Your task to perform on an android device: Open notification settings Image 0: 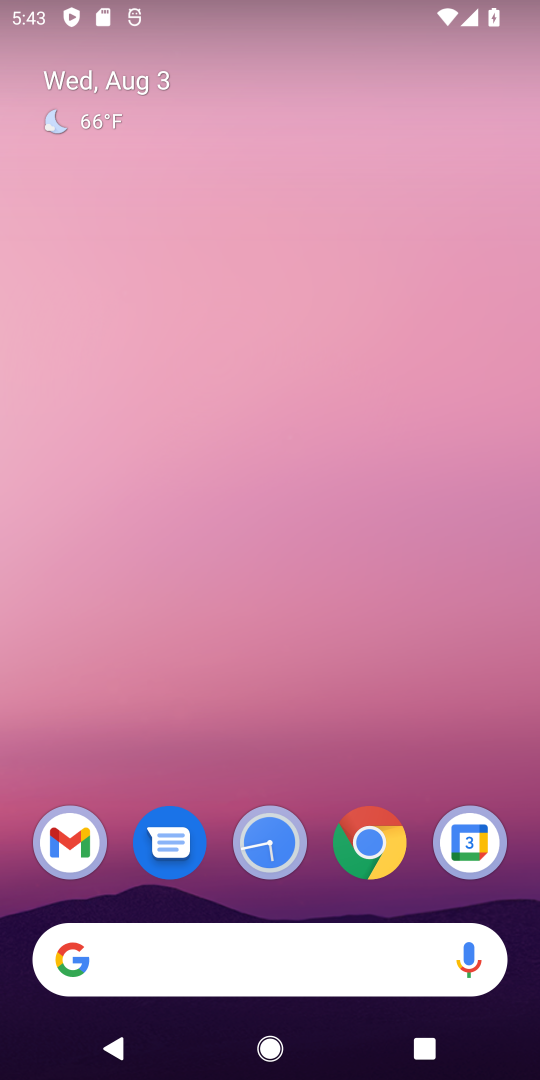
Step 0: press home button
Your task to perform on an android device: Open notification settings Image 1: 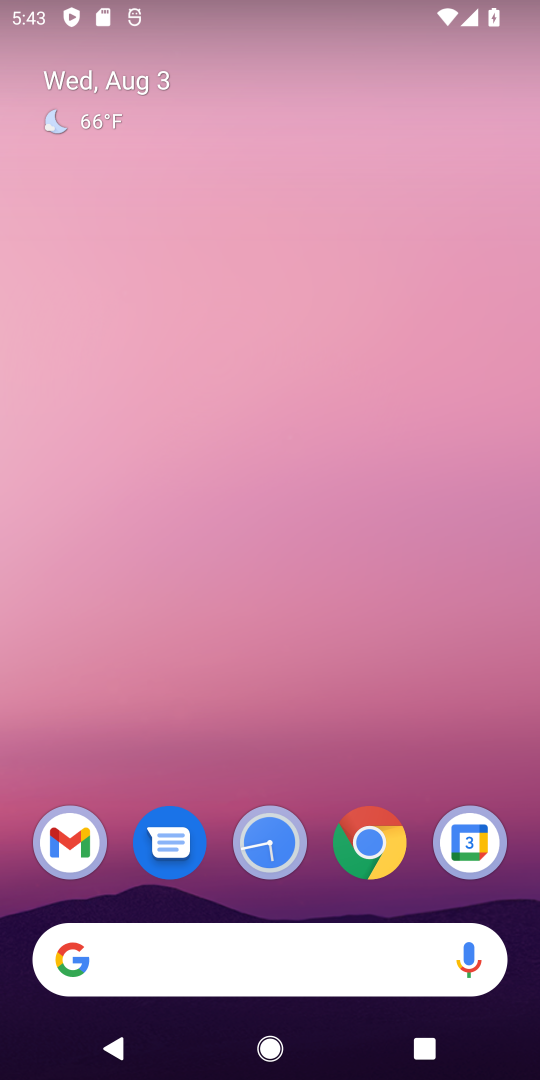
Step 1: drag from (198, 1043) to (292, 129)
Your task to perform on an android device: Open notification settings Image 2: 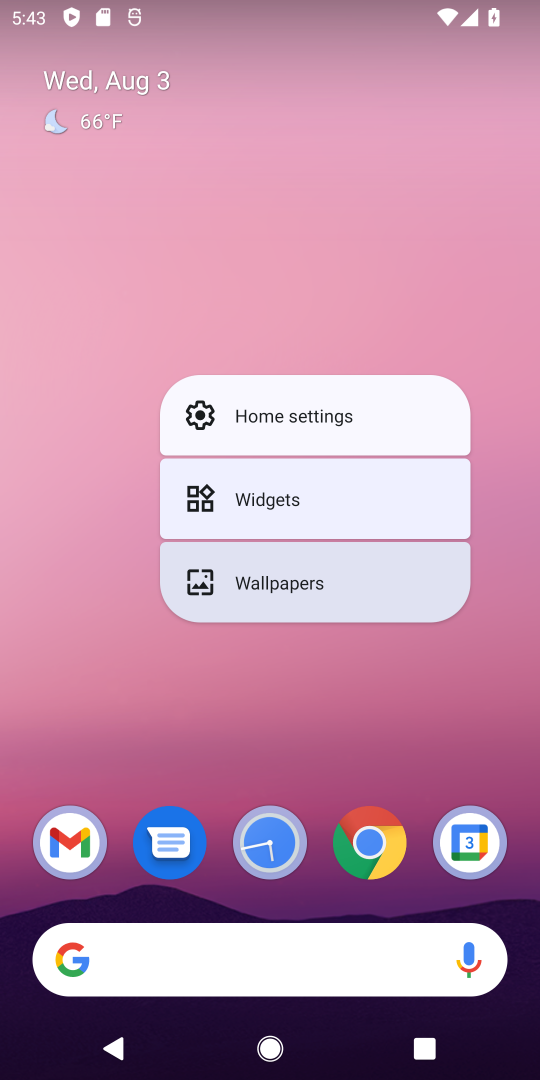
Step 2: click (273, 1055)
Your task to perform on an android device: Open notification settings Image 3: 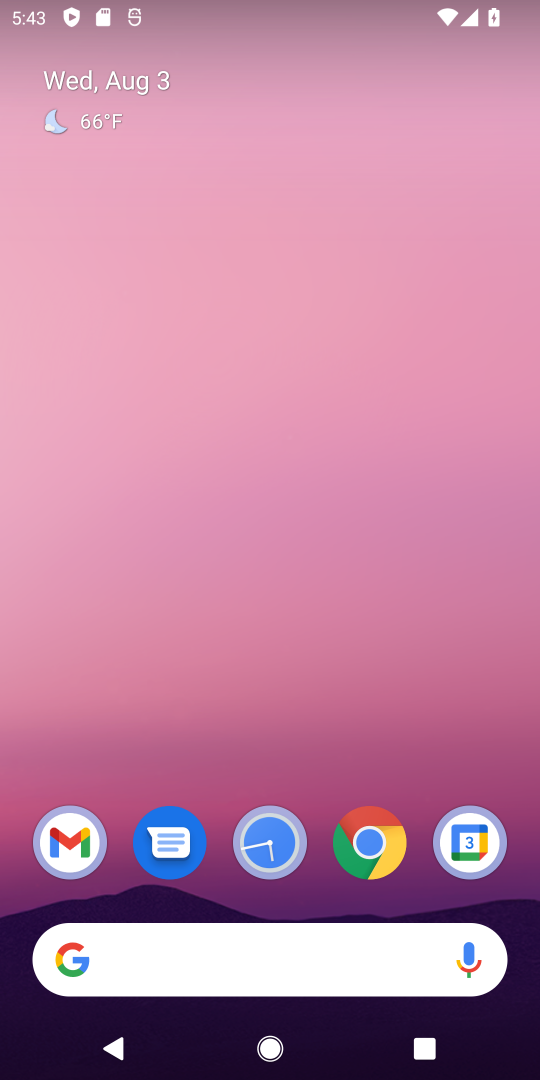
Step 3: drag from (331, 921) to (285, 25)
Your task to perform on an android device: Open notification settings Image 4: 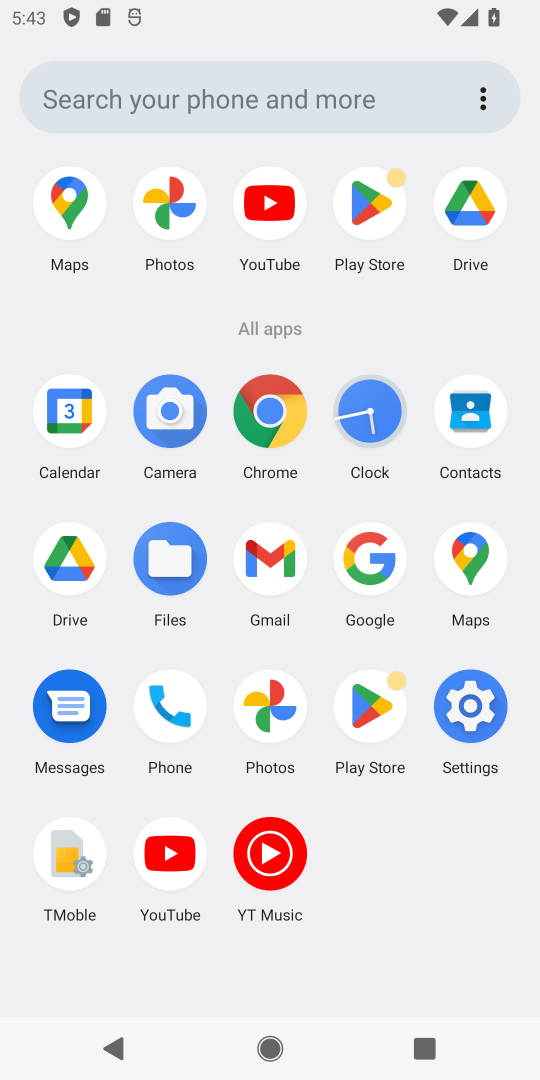
Step 4: click (459, 703)
Your task to perform on an android device: Open notification settings Image 5: 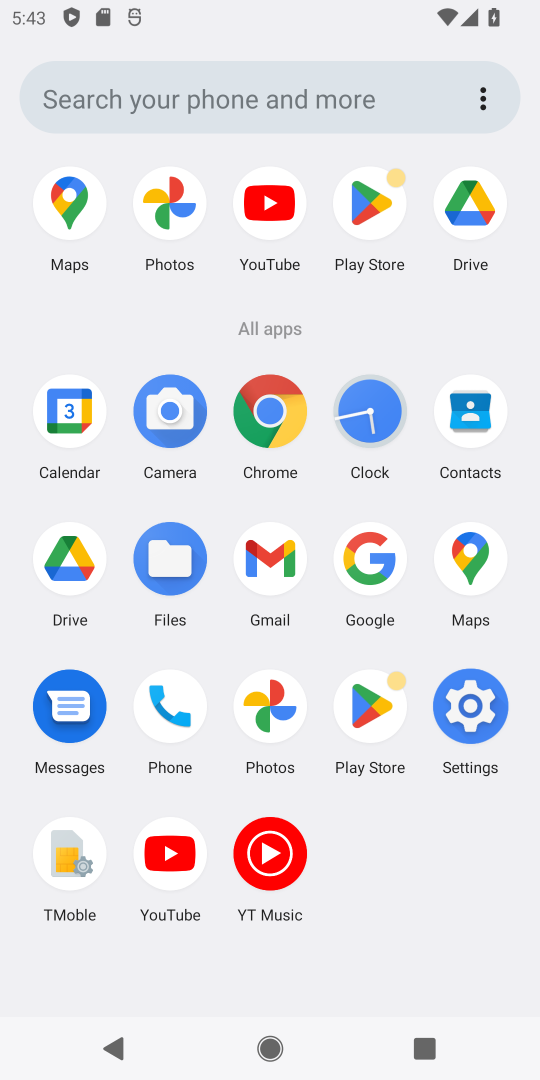
Step 5: click (459, 703)
Your task to perform on an android device: Open notification settings Image 6: 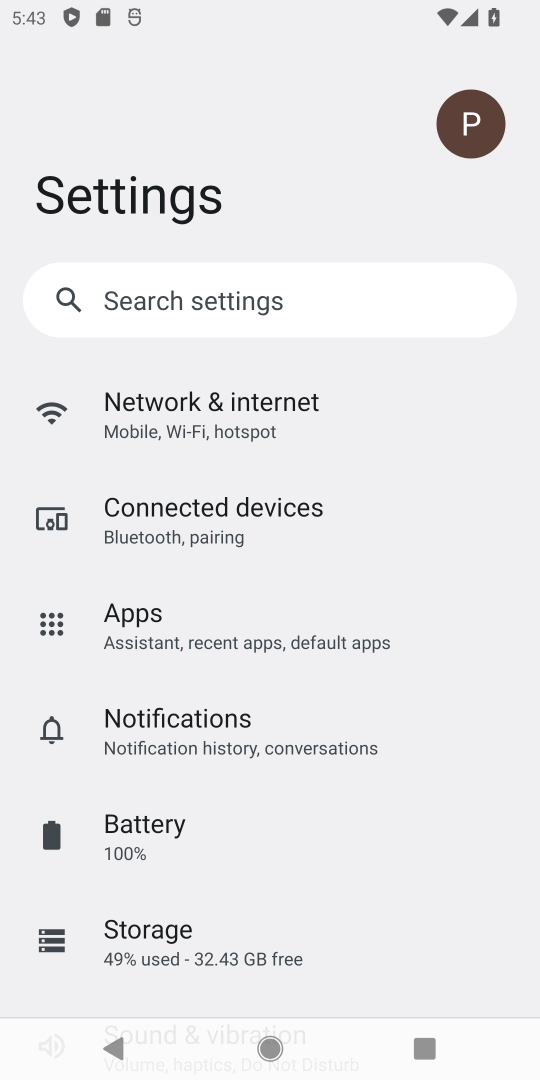
Step 6: click (224, 735)
Your task to perform on an android device: Open notification settings Image 7: 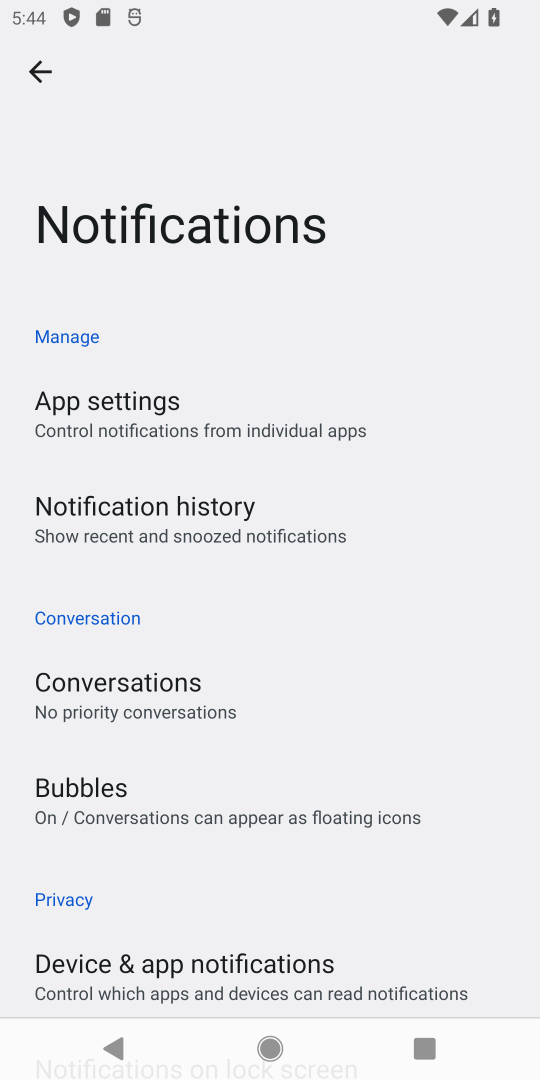
Step 7: task complete